Your task to perform on an android device: Toggle the flashlight Image 0: 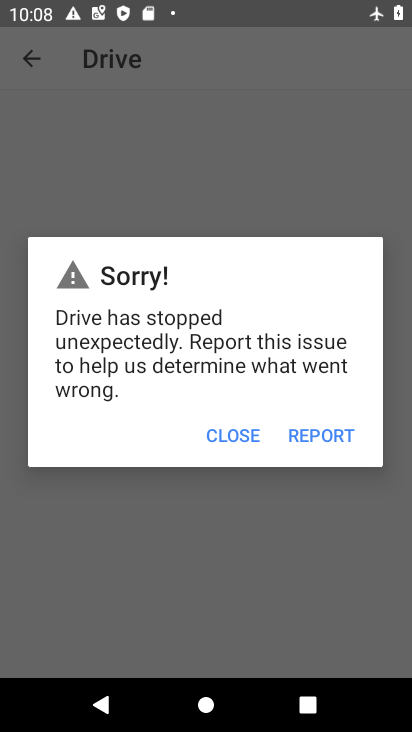
Step 0: press home button
Your task to perform on an android device: Toggle the flashlight Image 1: 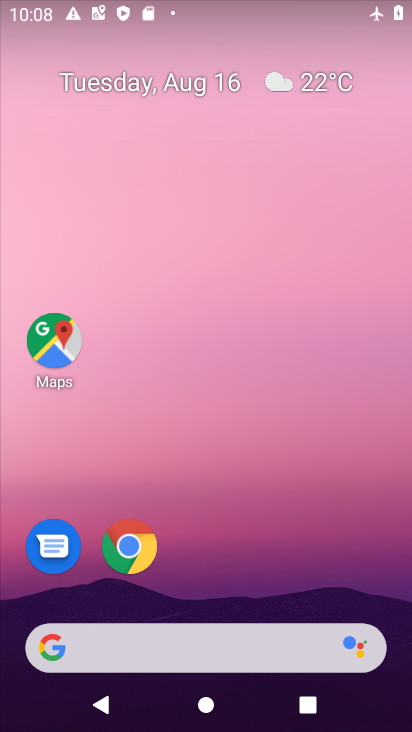
Step 1: drag from (218, 566) to (231, 0)
Your task to perform on an android device: Toggle the flashlight Image 2: 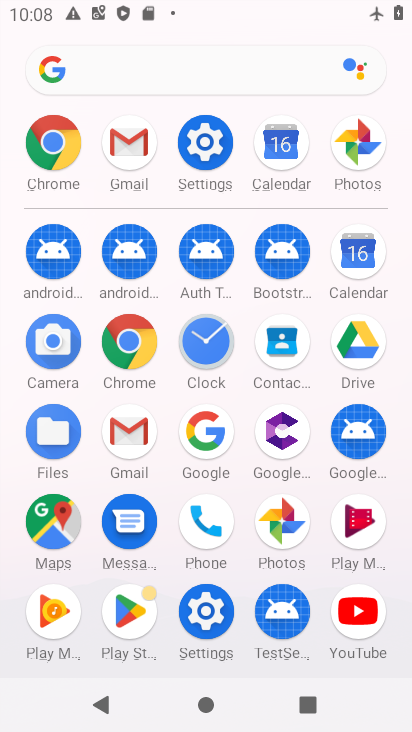
Step 2: click (205, 139)
Your task to perform on an android device: Toggle the flashlight Image 3: 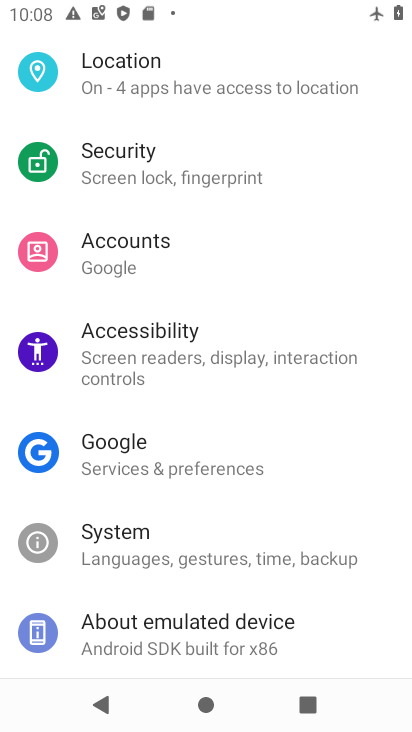
Step 3: drag from (209, 216) to (180, 624)
Your task to perform on an android device: Toggle the flashlight Image 4: 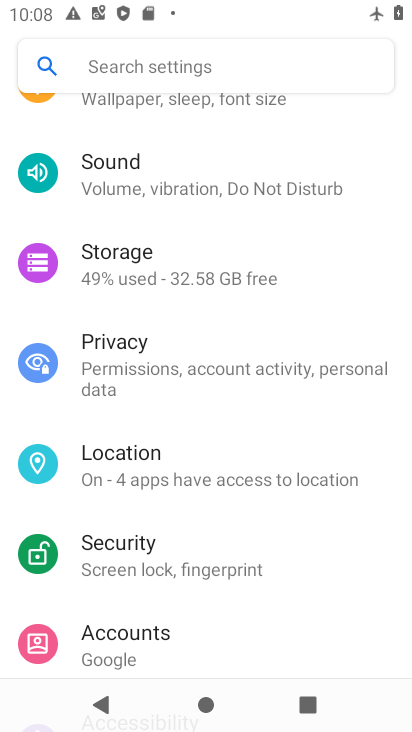
Step 4: drag from (278, 266) to (233, 659)
Your task to perform on an android device: Toggle the flashlight Image 5: 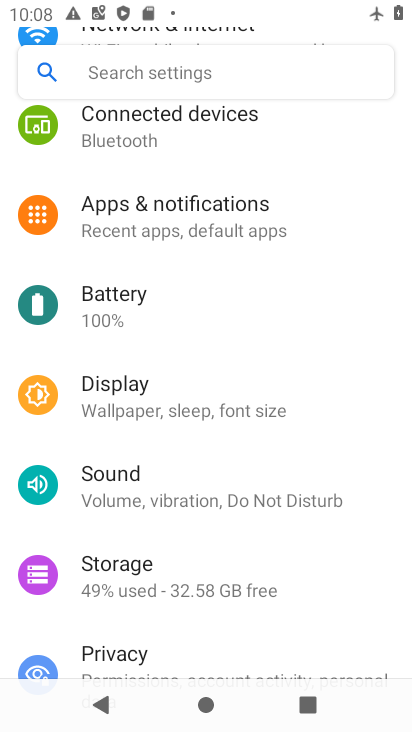
Step 5: drag from (242, 237) to (217, 648)
Your task to perform on an android device: Toggle the flashlight Image 6: 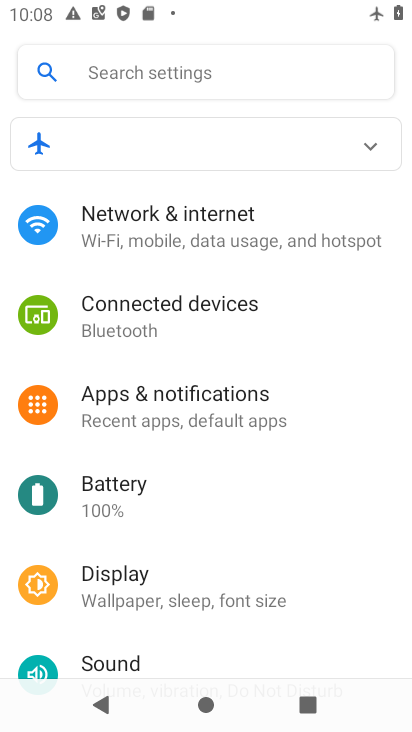
Step 6: click (270, 56)
Your task to perform on an android device: Toggle the flashlight Image 7: 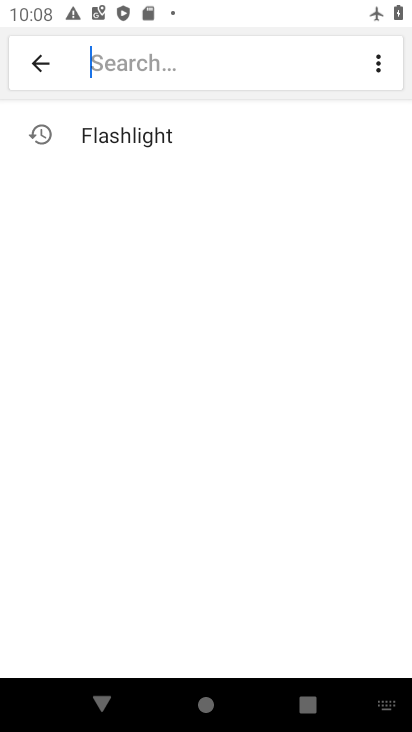
Step 7: click (158, 132)
Your task to perform on an android device: Toggle the flashlight Image 8: 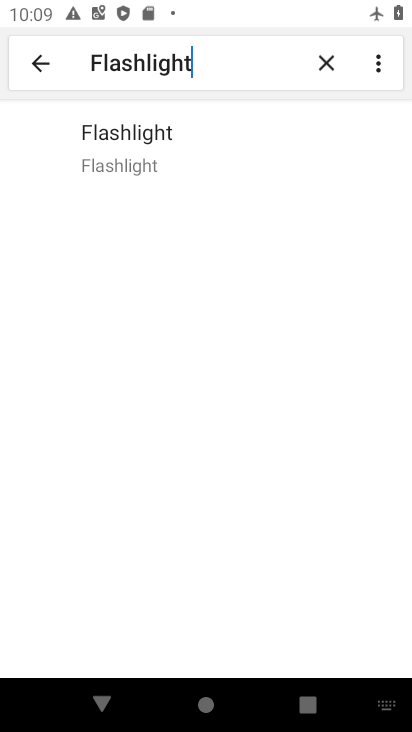
Step 8: click (146, 146)
Your task to perform on an android device: Toggle the flashlight Image 9: 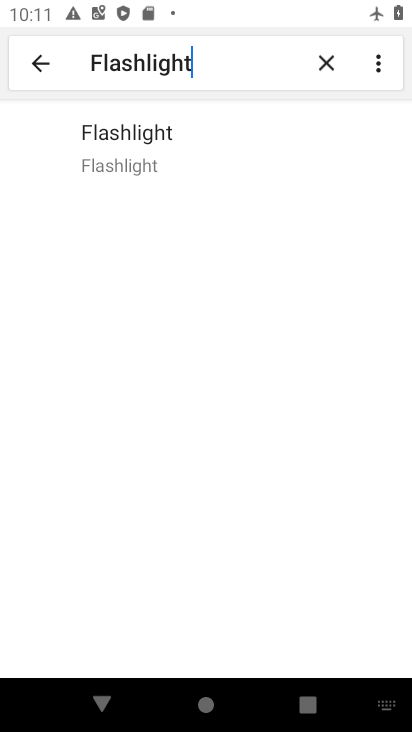
Step 9: click (164, 158)
Your task to perform on an android device: Toggle the flashlight Image 10: 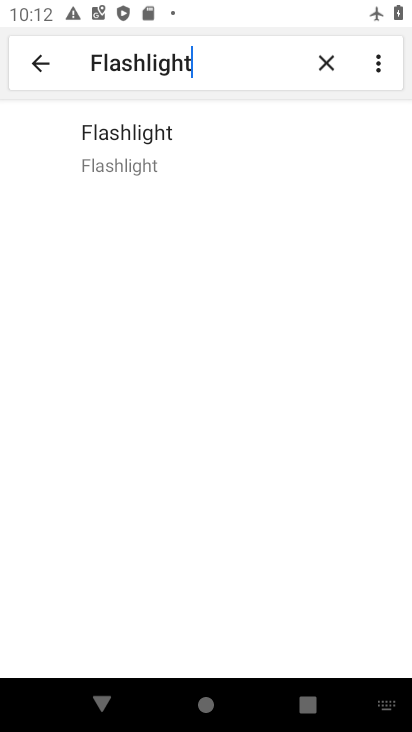
Step 10: task complete